Your task to perform on an android device: turn vacation reply on in the gmail app Image 0: 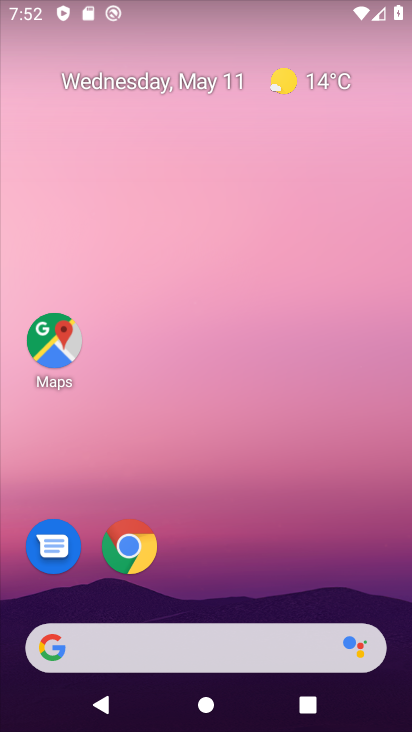
Step 0: drag from (190, 652) to (230, 150)
Your task to perform on an android device: turn vacation reply on in the gmail app Image 1: 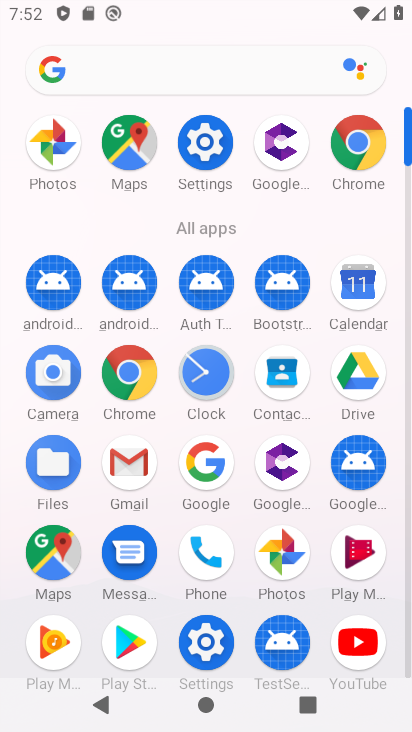
Step 1: click (116, 473)
Your task to perform on an android device: turn vacation reply on in the gmail app Image 2: 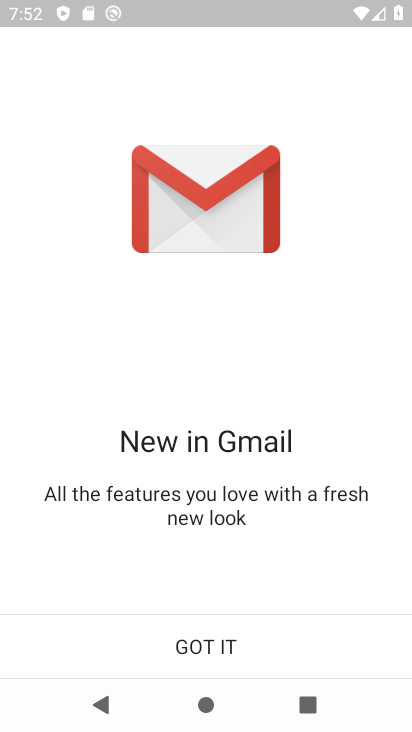
Step 2: click (236, 636)
Your task to perform on an android device: turn vacation reply on in the gmail app Image 3: 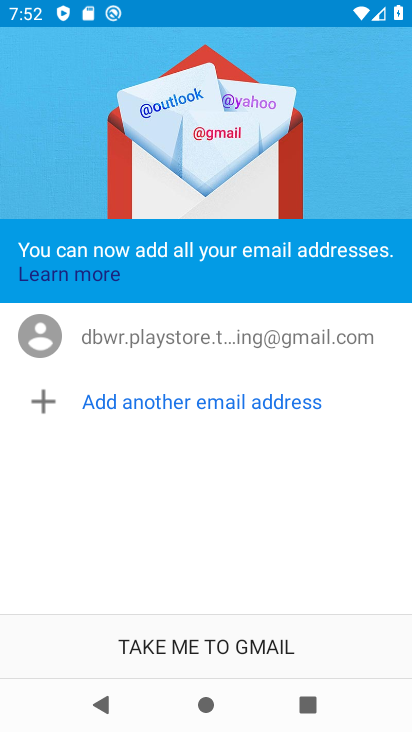
Step 3: click (257, 641)
Your task to perform on an android device: turn vacation reply on in the gmail app Image 4: 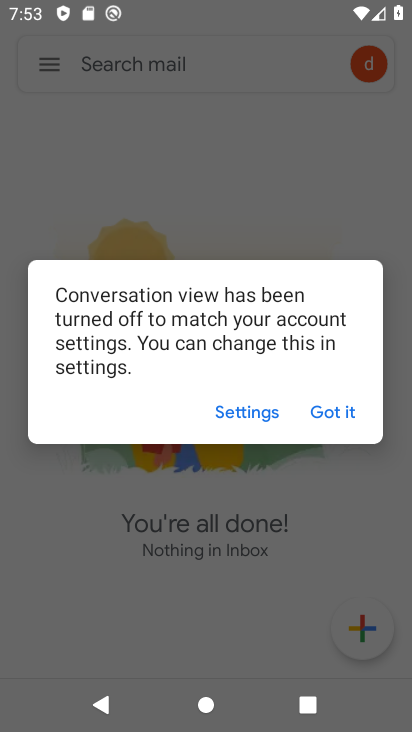
Step 4: click (333, 413)
Your task to perform on an android device: turn vacation reply on in the gmail app Image 5: 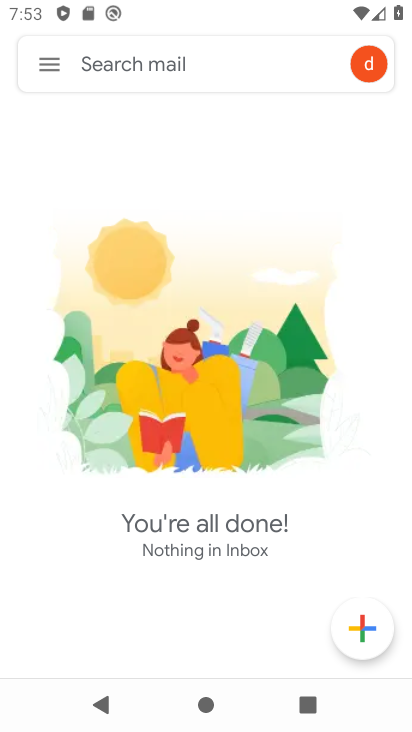
Step 5: click (42, 56)
Your task to perform on an android device: turn vacation reply on in the gmail app Image 6: 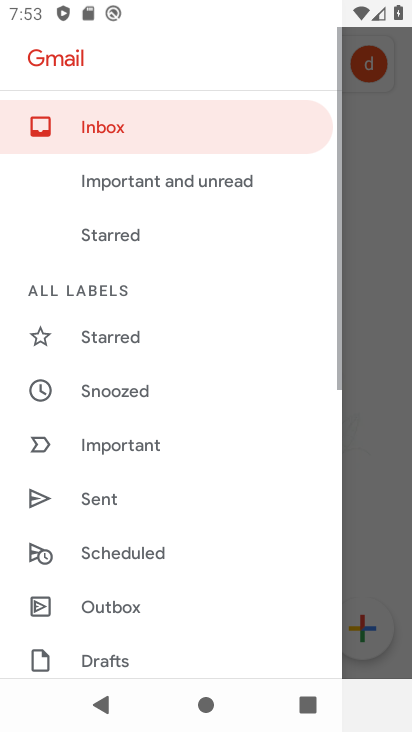
Step 6: drag from (150, 647) to (227, 78)
Your task to perform on an android device: turn vacation reply on in the gmail app Image 7: 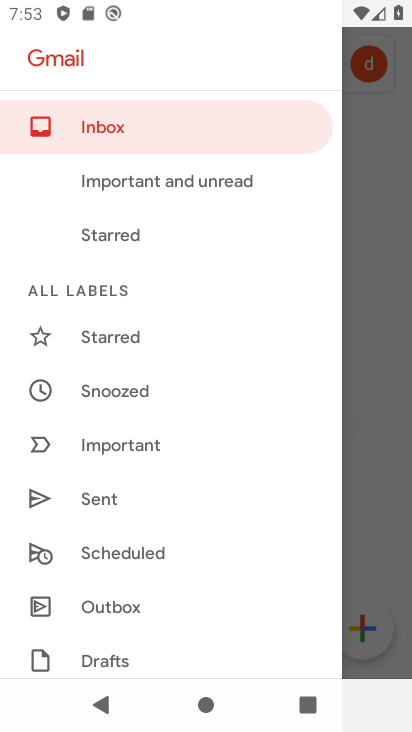
Step 7: drag from (180, 613) to (230, 24)
Your task to perform on an android device: turn vacation reply on in the gmail app Image 8: 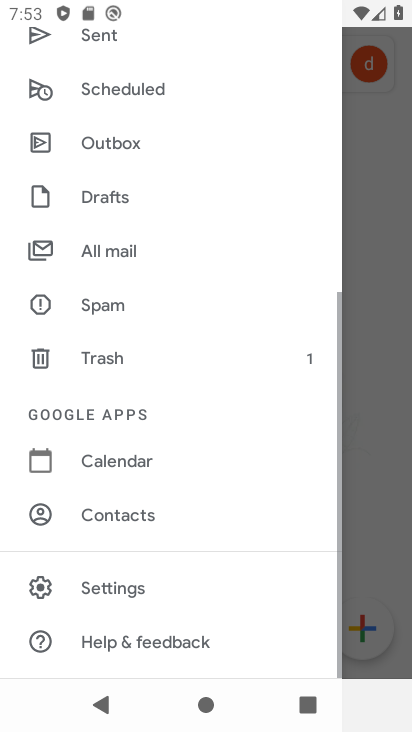
Step 8: click (143, 585)
Your task to perform on an android device: turn vacation reply on in the gmail app Image 9: 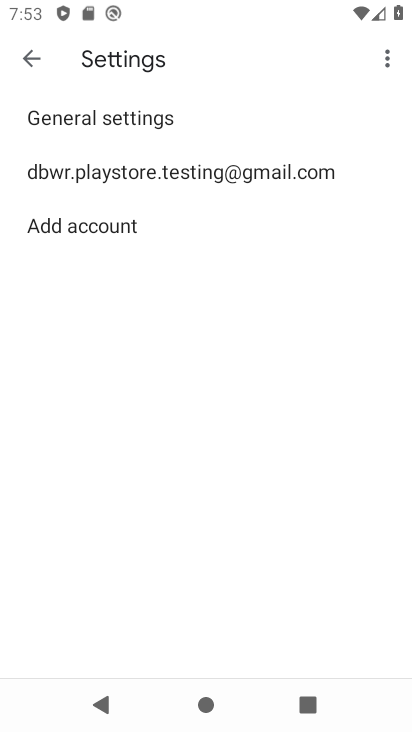
Step 9: click (204, 171)
Your task to perform on an android device: turn vacation reply on in the gmail app Image 10: 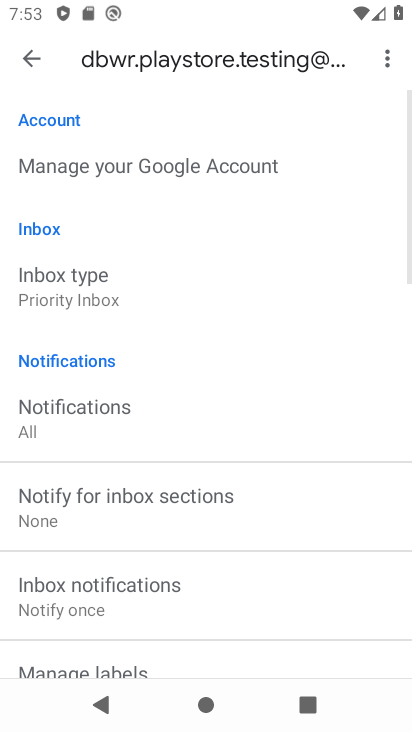
Step 10: drag from (145, 510) to (172, 32)
Your task to perform on an android device: turn vacation reply on in the gmail app Image 11: 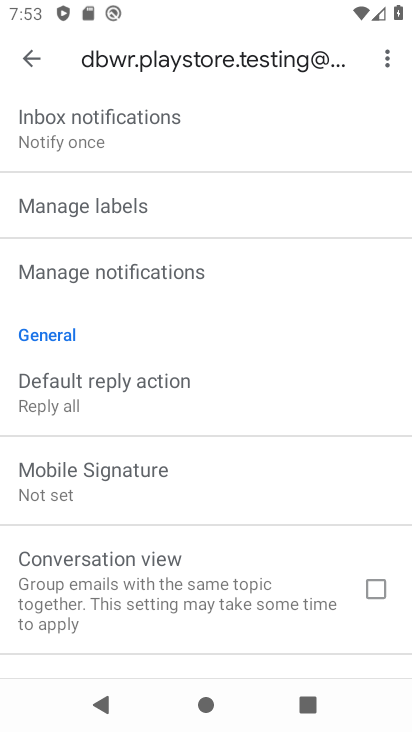
Step 11: drag from (171, 585) to (264, 205)
Your task to perform on an android device: turn vacation reply on in the gmail app Image 12: 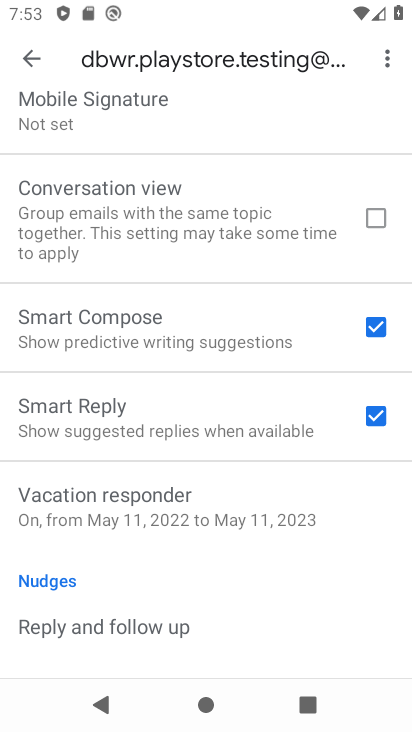
Step 12: click (186, 522)
Your task to perform on an android device: turn vacation reply on in the gmail app Image 13: 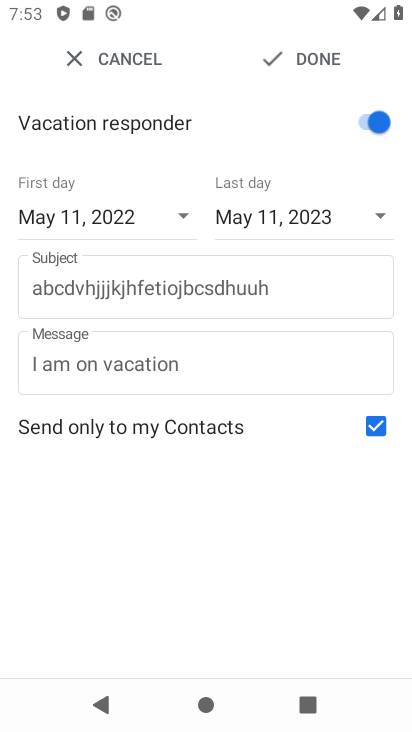
Step 13: task complete